Your task to perform on an android device: turn off notifications settings in the gmail app Image 0: 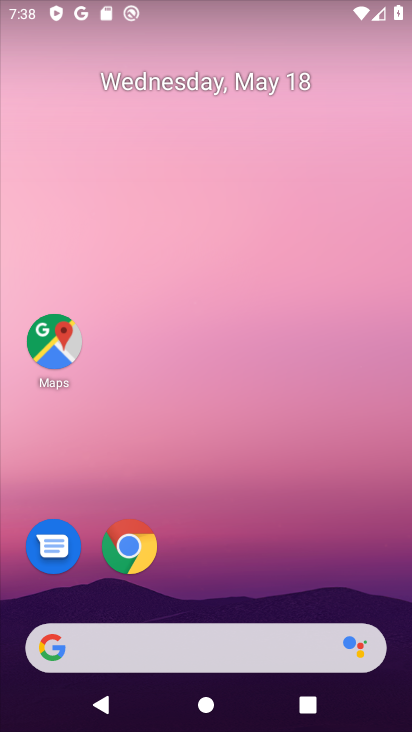
Step 0: drag from (211, 535) to (286, 257)
Your task to perform on an android device: turn off notifications settings in the gmail app Image 1: 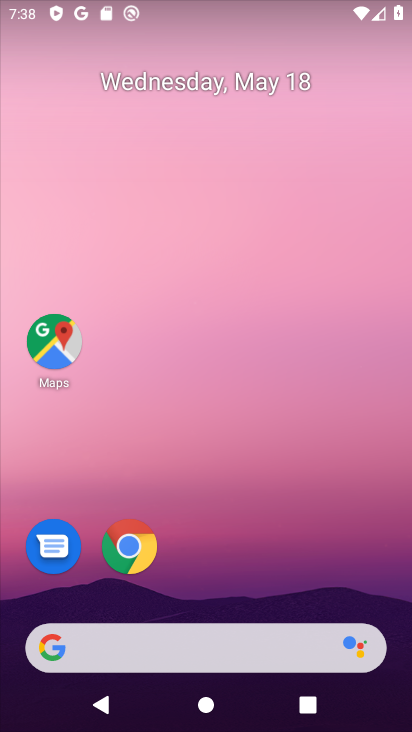
Step 1: drag from (227, 590) to (335, 114)
Your task to perform on an android device: turn off notifications settings in the gmail app Image 2: 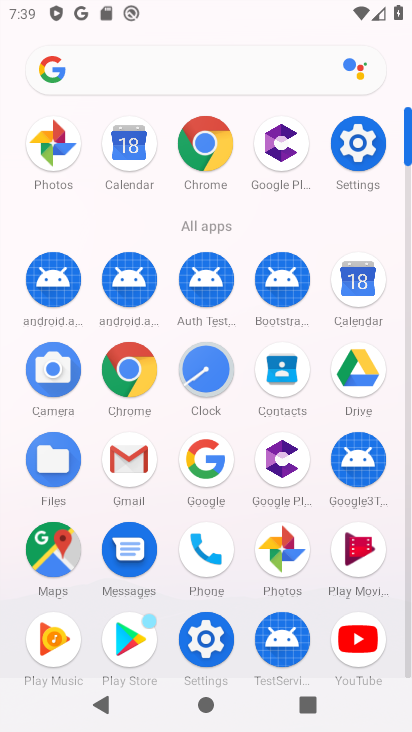
Step 2: click (130, 463)
Your task to perform on an android device: turn off notifications settings in the gmail app Image 3: 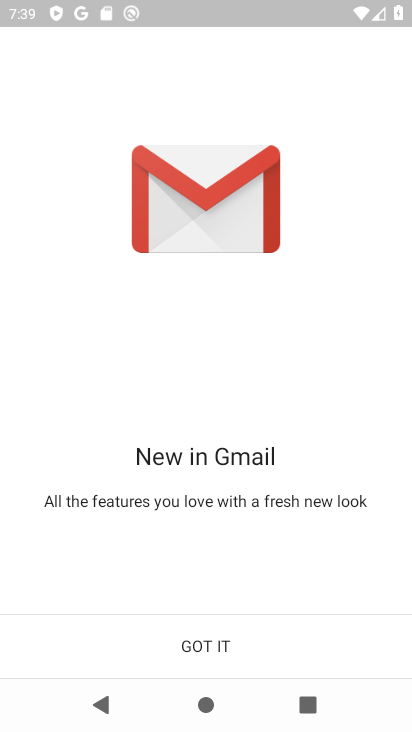
Step 3: click (191, 633)
Your task to perform on an android device: turn off notifications settings in the gmail app Image 4: 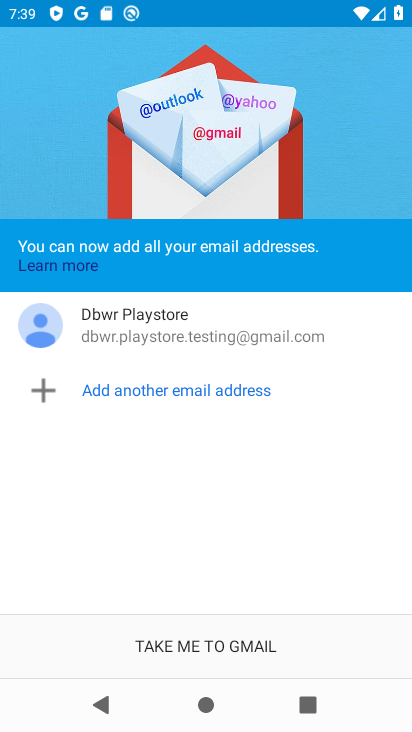
Step 4: click (210, 654)
Your task to perform on an android device: turn off notifications settings in the gmail app Image 5: 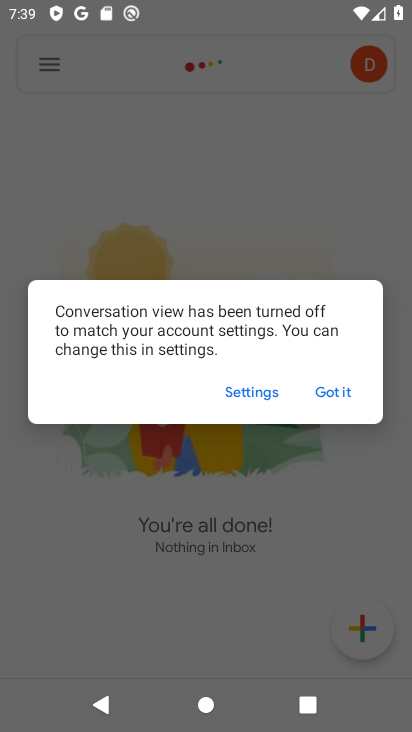
Step 5: click (351, 399)
Your task to perform on an android device: turn off notifications settings in the gmail app Image 6: 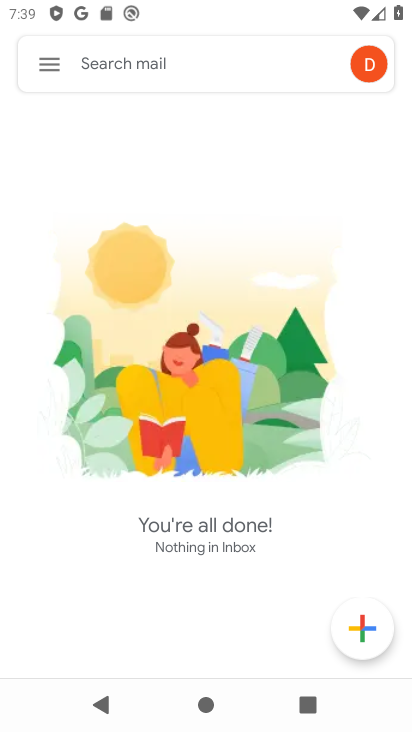
Step 6: click (60, 65)
Your task to perform on an android device: turn off notifications settings in the gmail app Image 7: 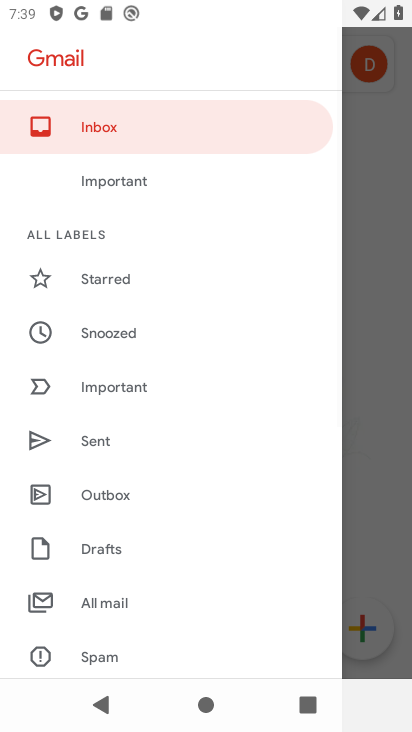
Step 7: drag from (107, 552) to (222, 243)
Your task to perform on an android device: turn off notifications settings in the gmail app Image 8: 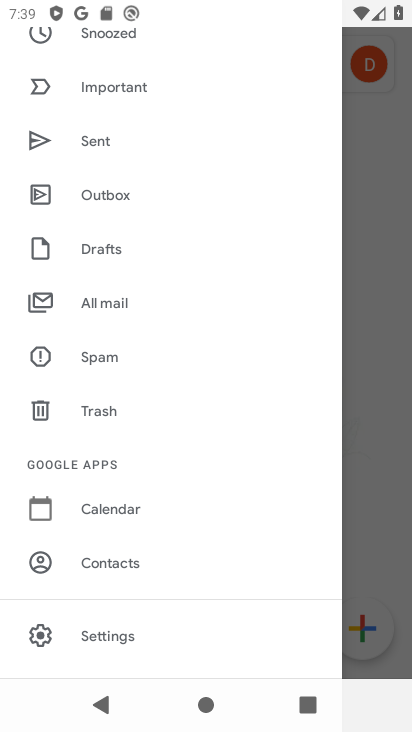
Step 8: click (130, 641)
Your task to perform on an android device: turn off notifications settings in the gmail app Image 9: 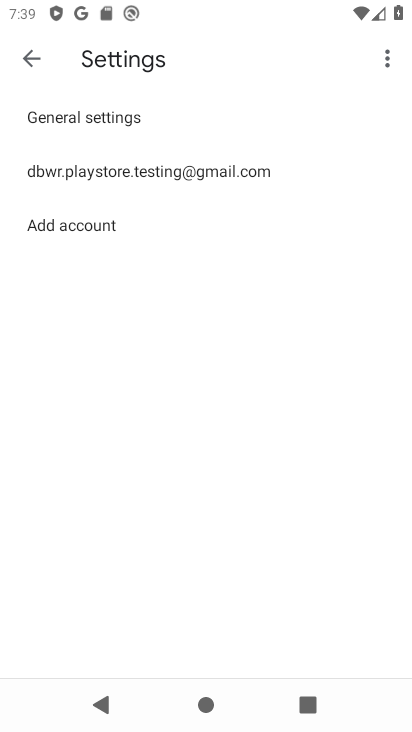
Step 9: click (189, 183)
Your task to perform on an android device: turn off notifications settings in the gmail app Image 10: 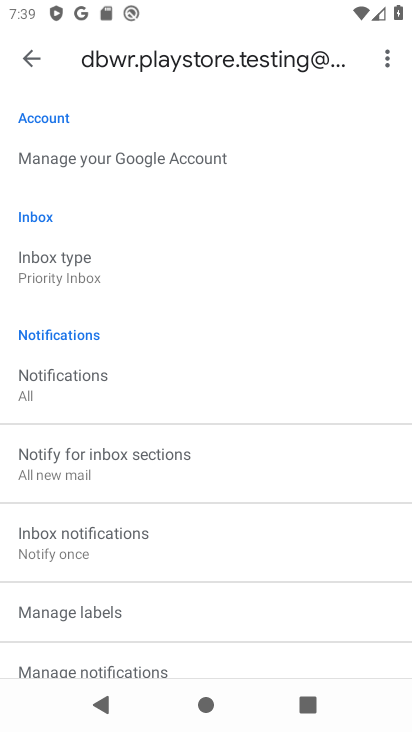
Step 10: click (55, 392)
Your task to perform on an android device: turn off notifications settings in the gmail app Image 11: 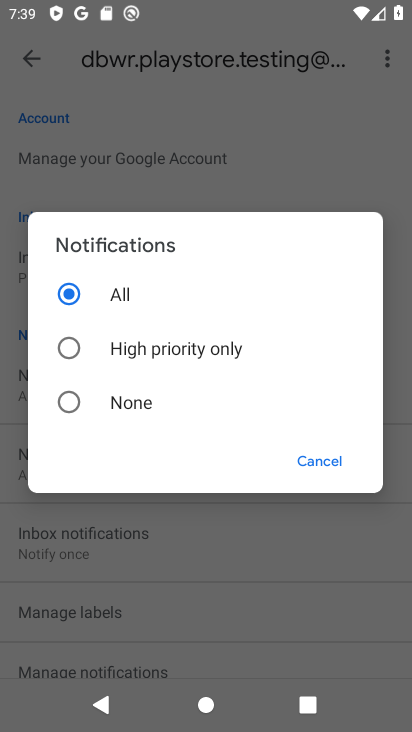
Step 11: click (142, 399)
Your task to perform on an android device: turn off notifications settings in the gmail app Image 12: 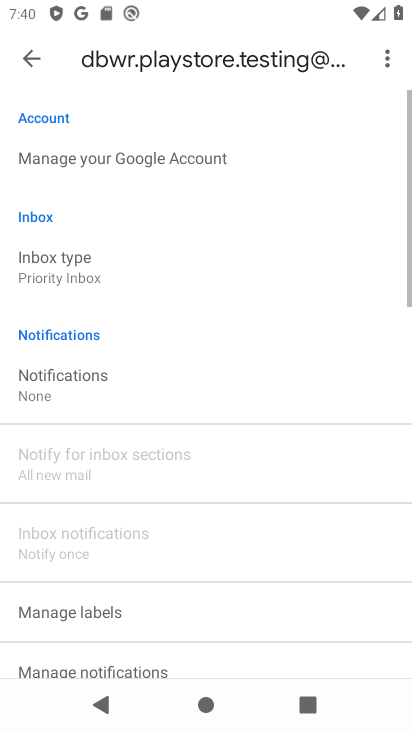
Step 12: task complete